Your task to perform on an android device: Go to calendar. Show me events next week Image 0: 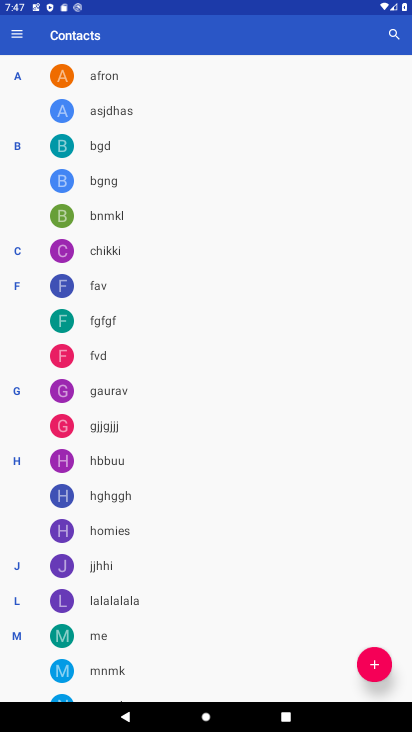
Step 0: press home button
Your task to perform on an android device: Go to calendar. Show me events next week Image 1: 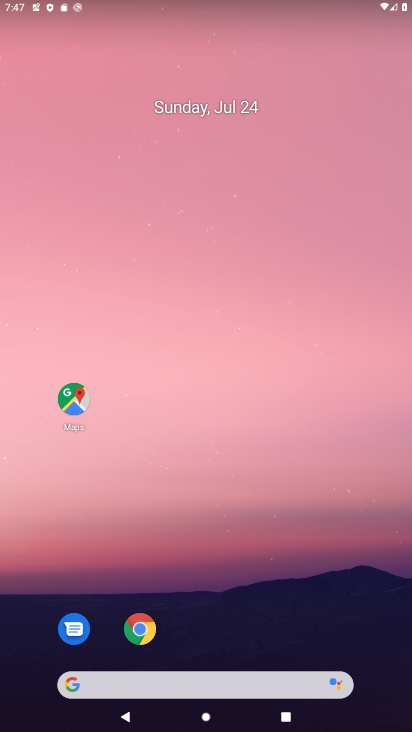
Step 1: drag from (362, 625) to (383, 127)
Your task to perform on an android device: Go to calendar. Show me events next week Image 2: 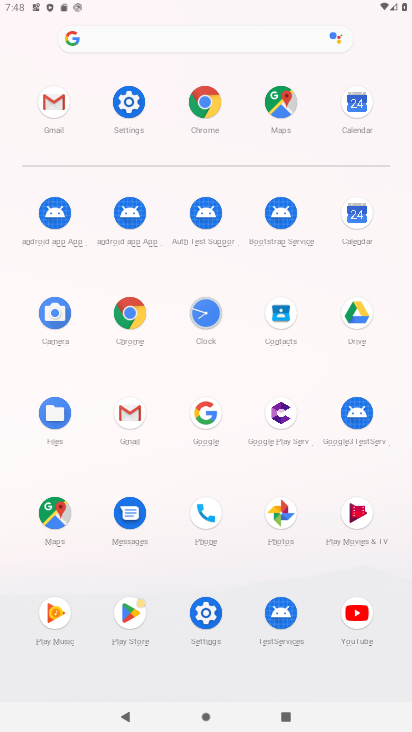
Step 2: click (356, 220)
Your task to perform on an android device: Go to calendar. Show me events next week Image 3: 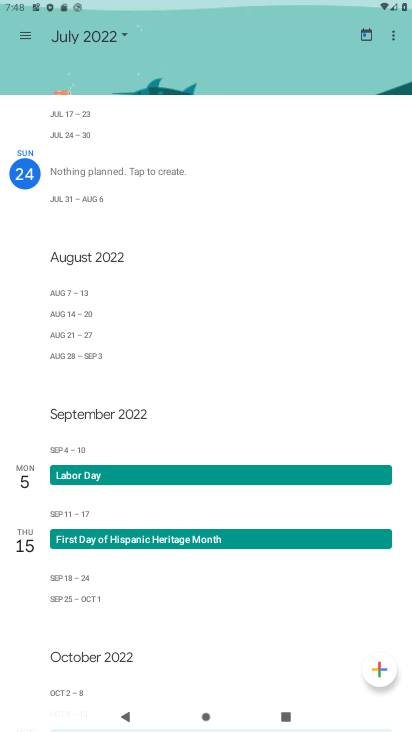
Step 3: click (123, 32)
Your task to perform on an android device: Go to calendar. Show me events next week Image 4: 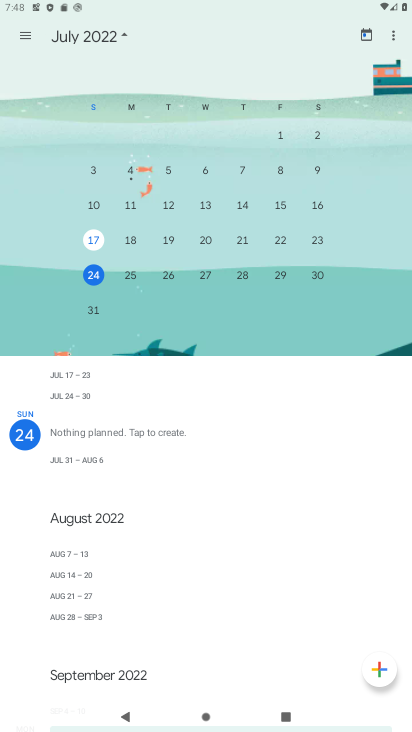
Step 4: task complete